Your task to perform on an android device: choose inbox layout in the gmail app Image 0: 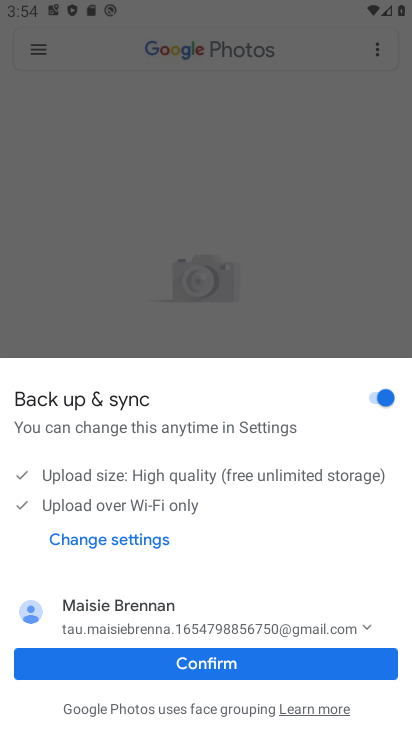
Step 0: press home button
Your task to perform on an android device: choose inbox layout in the gmail app Image 1: 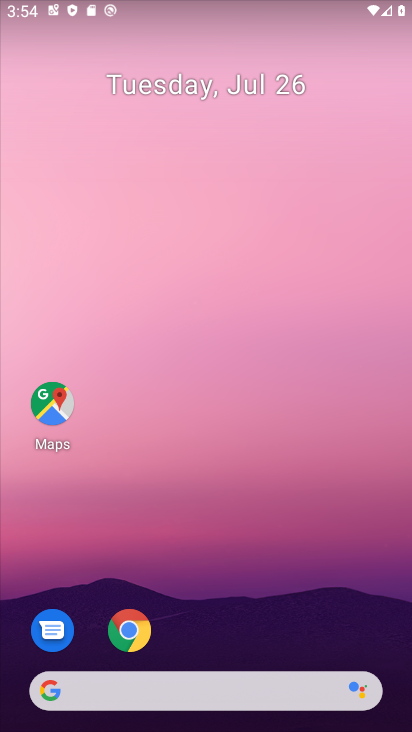
Step 1: drag from (275, 646) to (173, 223)
Your task to perform on an android device: choose inbox layout in the gmail app Image 2: 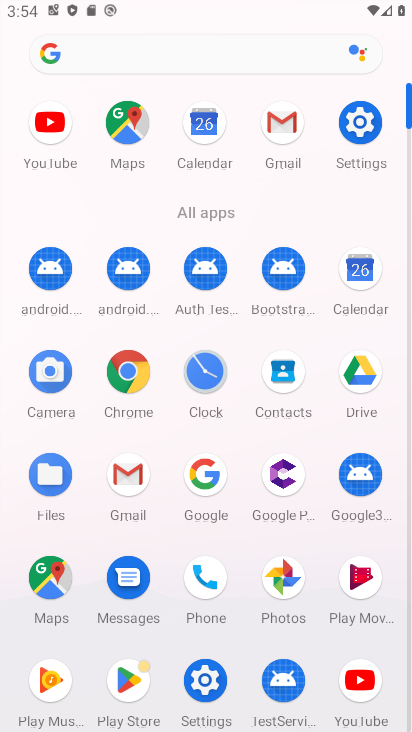
Step 2: click (286, 122)
Your task to perform on an android device: choose inbox layout in the gmail app Image 3: 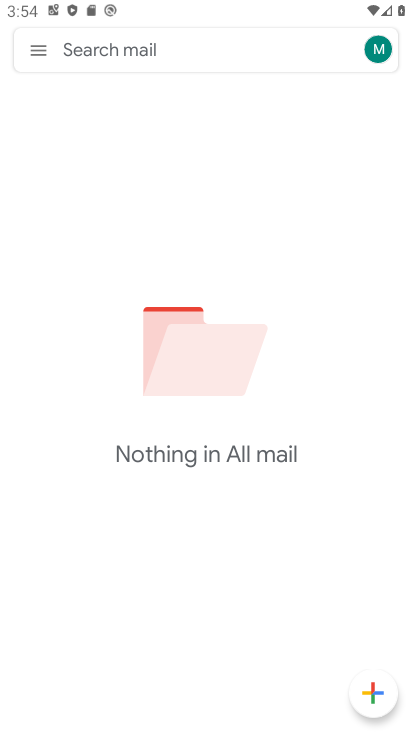
Step 3: click (43, 50)
Your task to perform on an android device: choose inbox layout in the gmail app Image 4: 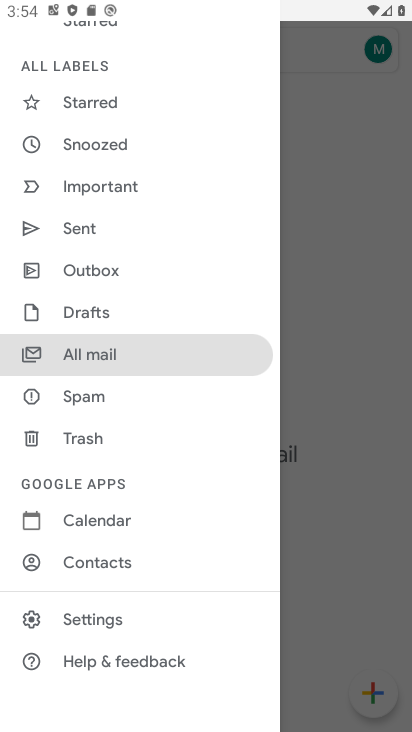
Step 4: click (149, 616)
Your task to perform on an android device: choose inbox layout in the gmail app Image 5: 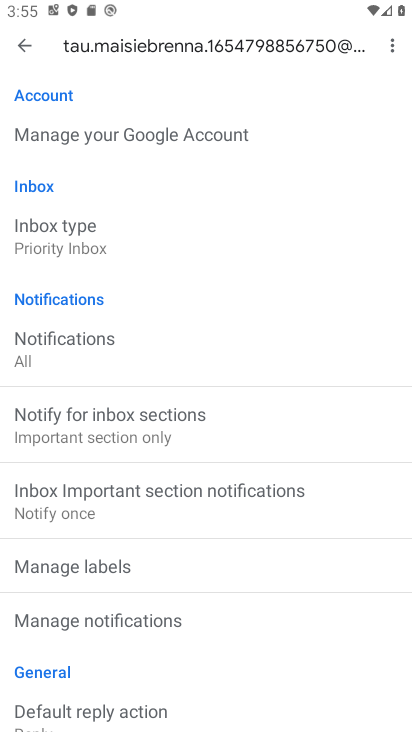
Step 5: click (127, 241)
Your task to perform on an android device: choose inbox layout in the gmail app Image 6: 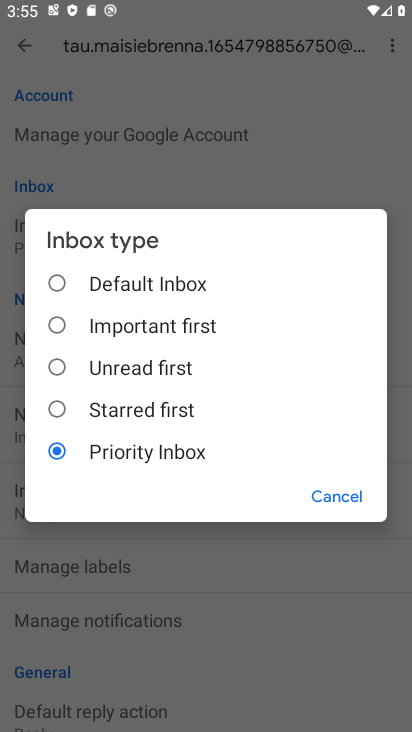
Step 6: click (171, 331)
Your task to perform on an android device: choose inbox layout in the gmail app Image 7: 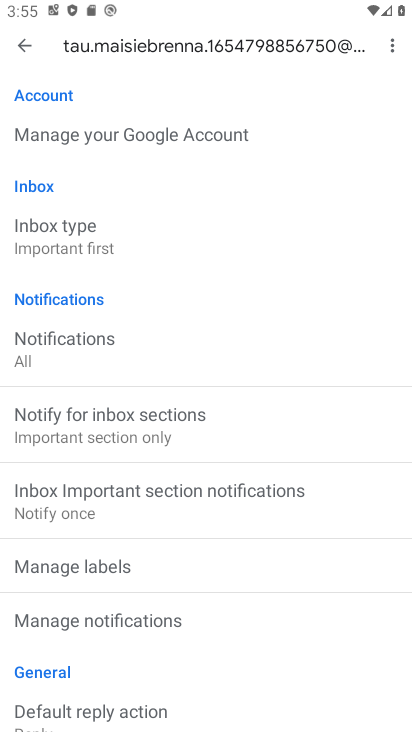
Step 7: task complete